Your task to perform on an android device: Go to wifi settings Image 0: 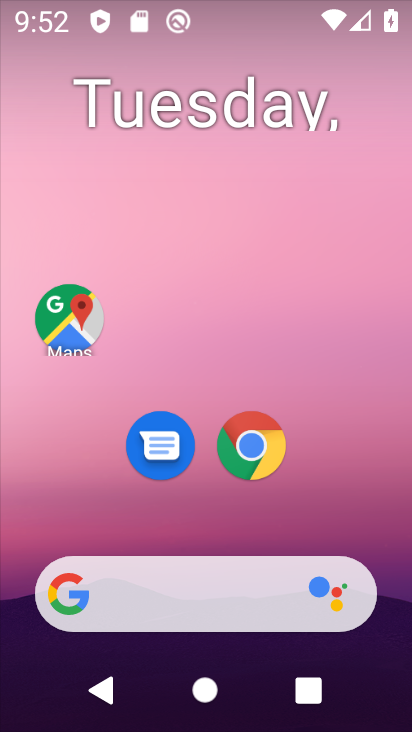
Step 0: drag from (85, 536) to (262, 96)
Your task to perform on an android device: Go to wifi settings Image 1: 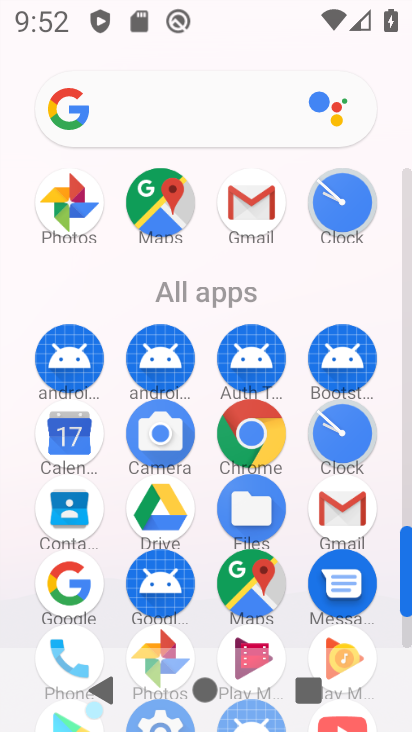
Step 1: drag from (90, 609) to (186, 303)
Your task to perform on an android device: Go to wifi settings Image 2: 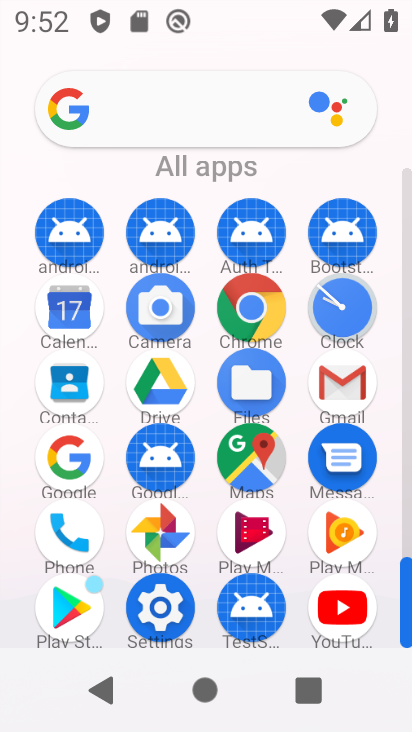
Step 2: click (158, 611)
Your task to perform on an android device: Go to wifi settings Image 3: 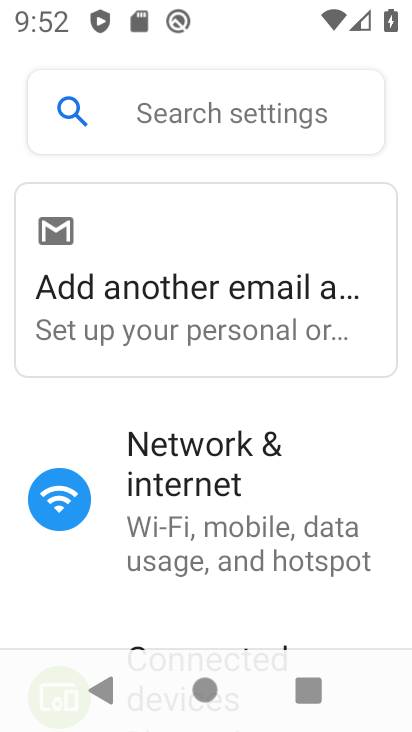
Step 3: click (193, 511)
Your task to perform on an android device: Go to wifi settings Image 4: 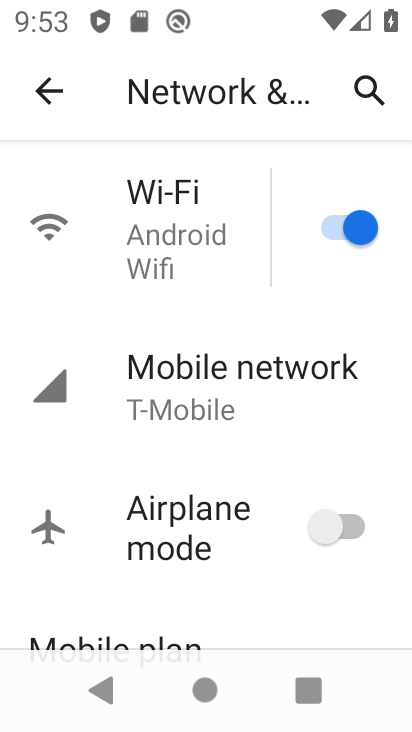
Step 4: click (100, 287)
Your task to perform on an android device: Go to wifi settings Image 5: 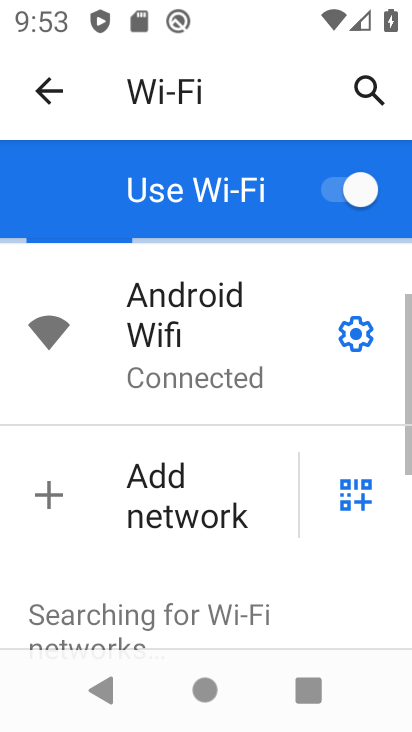
Step 5: task complete